Your task to perform on an android device: turn notification dots on Image 0: 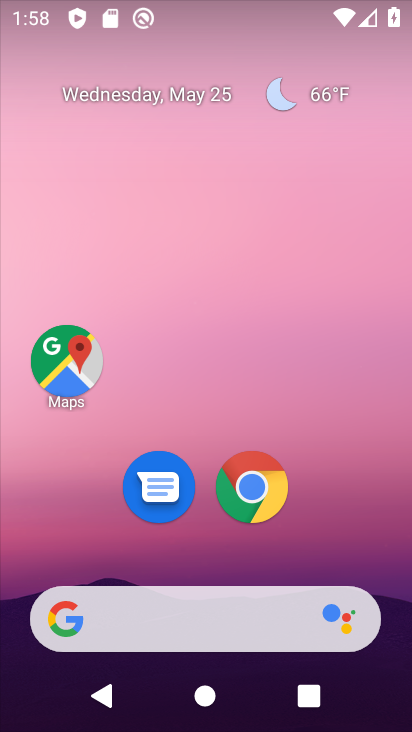
Step 0: drag from (236, 574) to (306, 154)
Your task to perform on an android device: turn notification dots on Image 1: 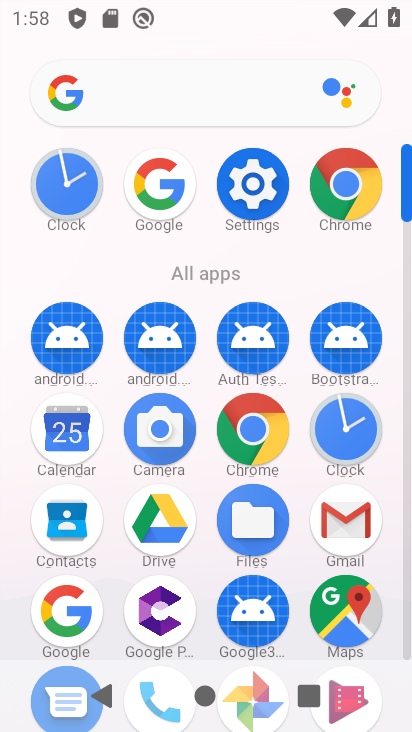
Step 1: click (255, 194)
Your task to perform on an android device: turn notification dots on Image 2: 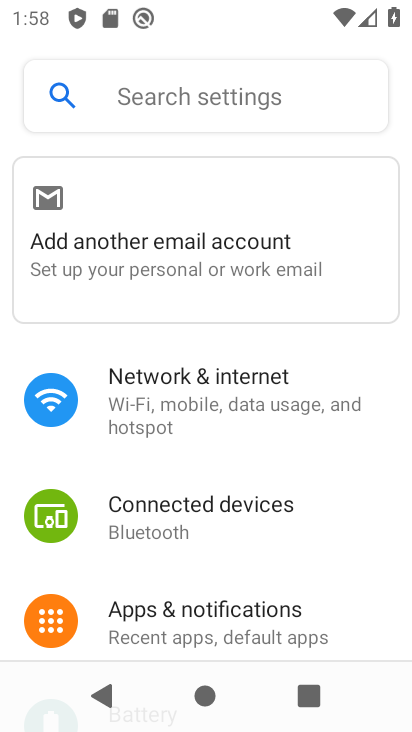
Step 2: click (217, 605)
Your task to perform on an android device: turn notification dots on Image 3: 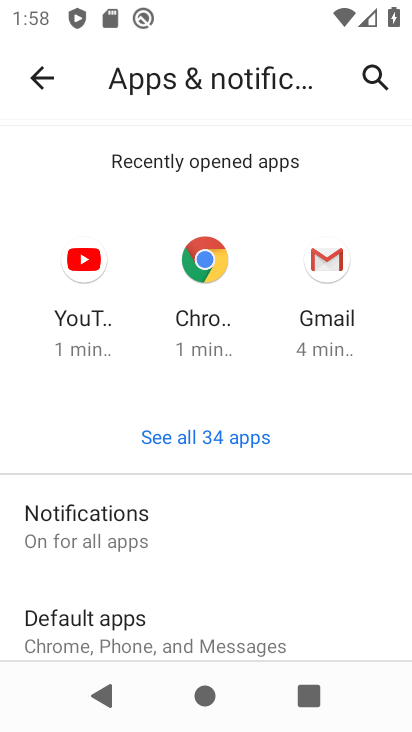
Step 3: click (71, 510)
Your task to perform on an android device: turn notification dots on Image 4: 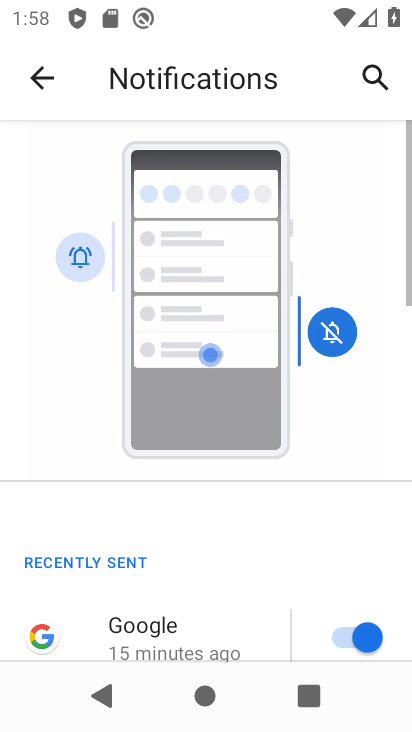
Step 4: drag from (212, 621) to (214, 152)
Your task to perform on an android device: turn notification dots on Image 5: 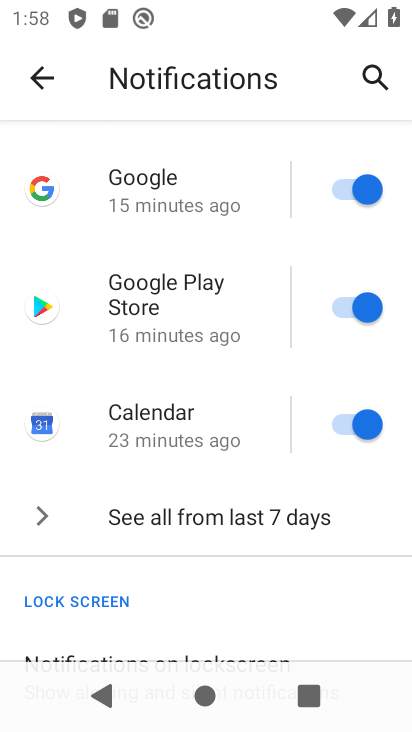
Step 5: drag from (204, 596) to (255, 215)
Your task to perform on an android device: turn notification dots on Image 6: 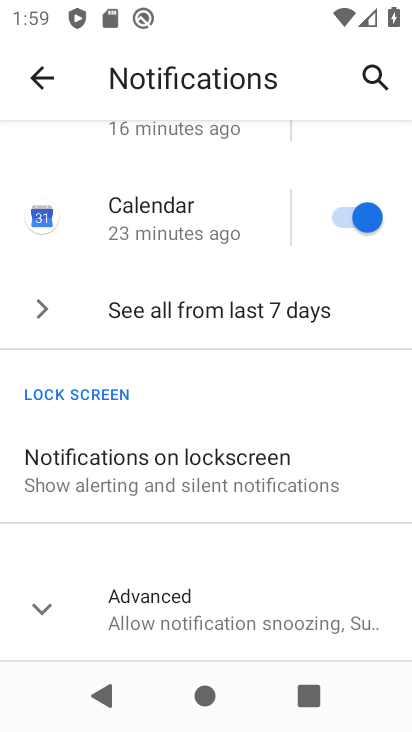
Step 6: click (159, 615)
Your task to perform on an android device: turn notification dots on Image 7: 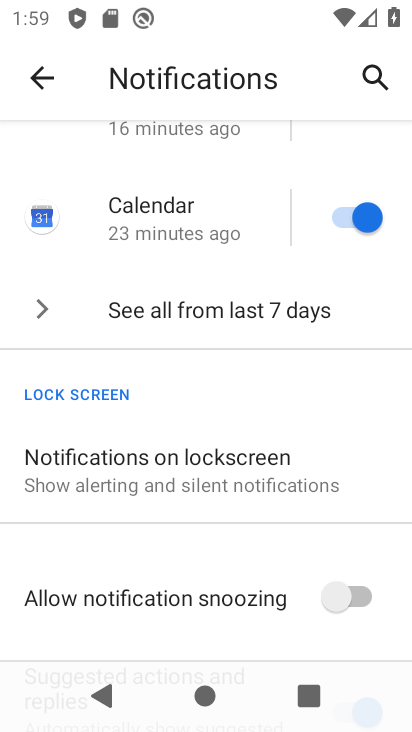
Step 7: drag from (234, 603) to (244, 383)
Your task to perform on an android device: turn notification dots on Image 8: 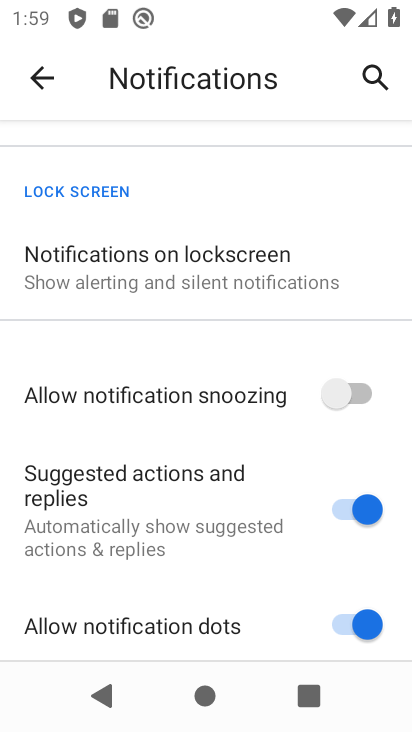
Step 8: click (346, 619)
Your task to perform on an android device: turn notification dots on Image 9: 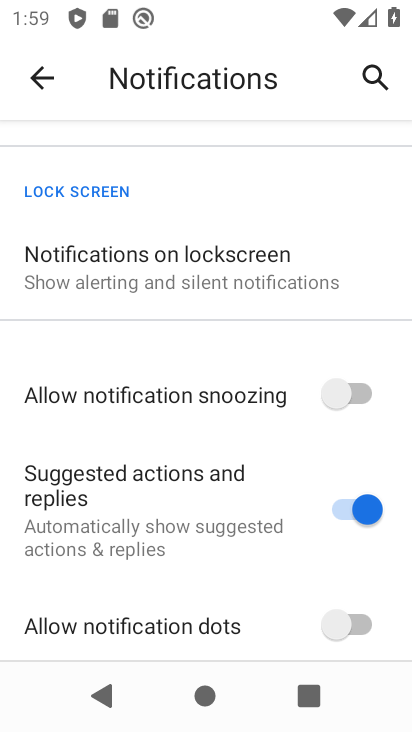
Step 9: task complete